Your task to perform on an android device: What's the weather going to be this weekend? Image 0: 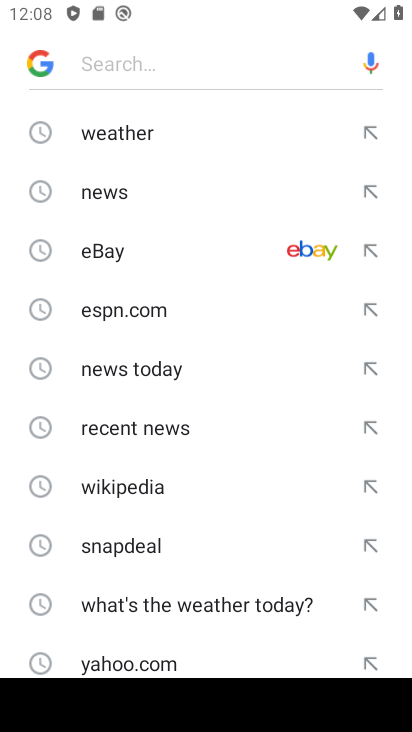
Step 0: click (146, 133)
Your task to perform on an android device: What's the weather going to be this weekend? Image 1: 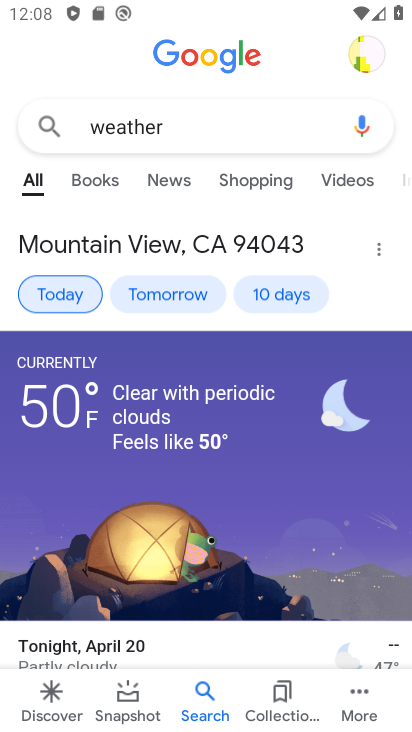
Step 1: click (286, 283)
Your task to perform on an android device: What's the weather going to be this weekend? Image 2: 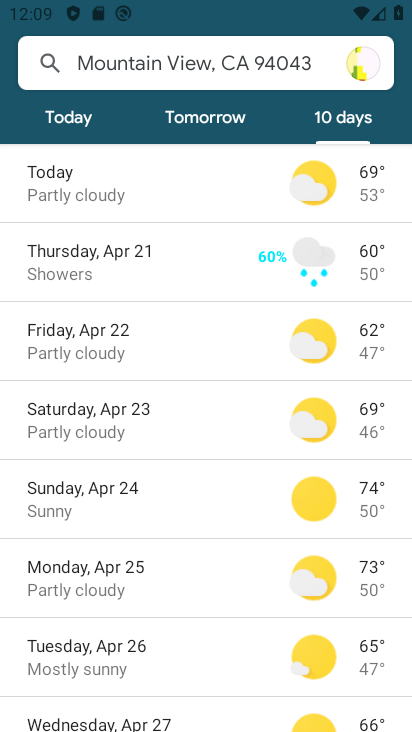
Step 2: task complete